Your task to perform on an android device: Open wifi settings Image 0: 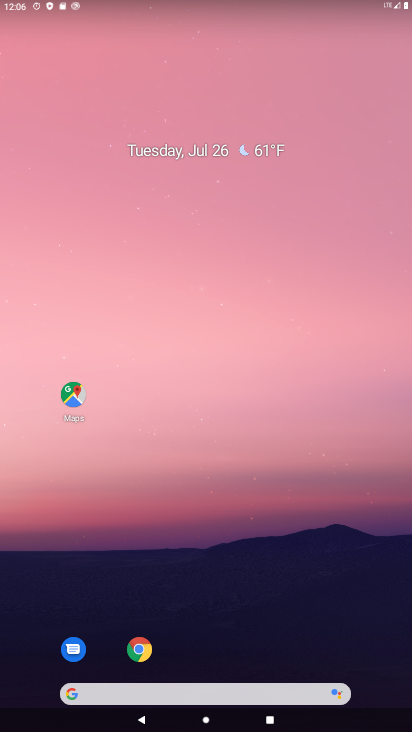
Step 0: drag from (202, 664) to (194, 112)
Your task to perform on an android device: Open wifi settings Image 1: 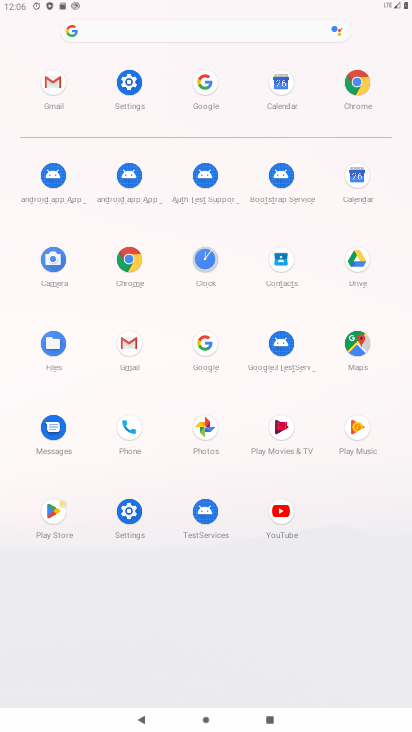
Step 1: click (130, 99)
Your task to perform on an android device: Open wifi settings Image 2: 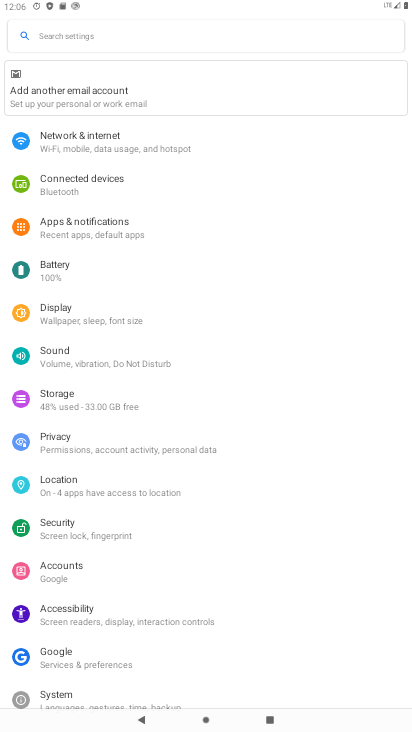
Step 2: click (93, 151)
Your task to perform on an android device: Open wifi settings Image 3: 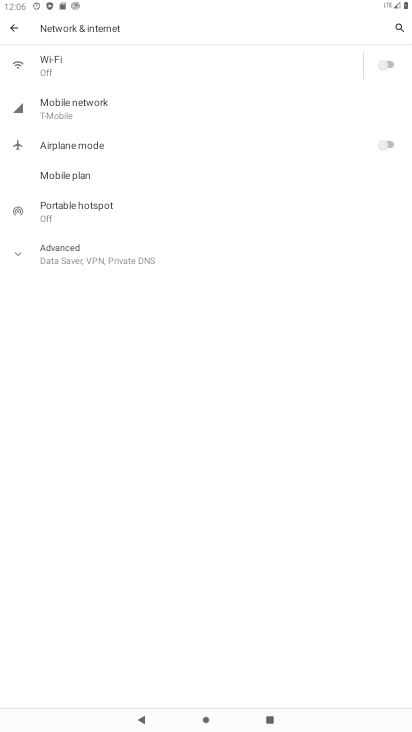
Step 3: click (73, 74)
Your task to perform on an android device: Open wifi settings Image 4: 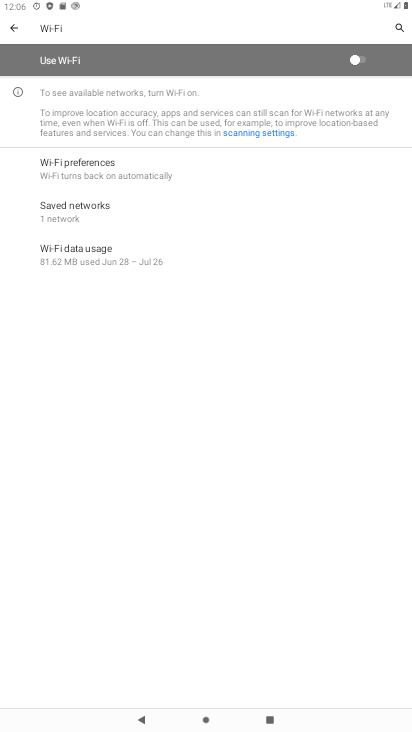
Step 4: task complete